Your task to perform on an android device: What's the weather going to be this weekend? Image 0: 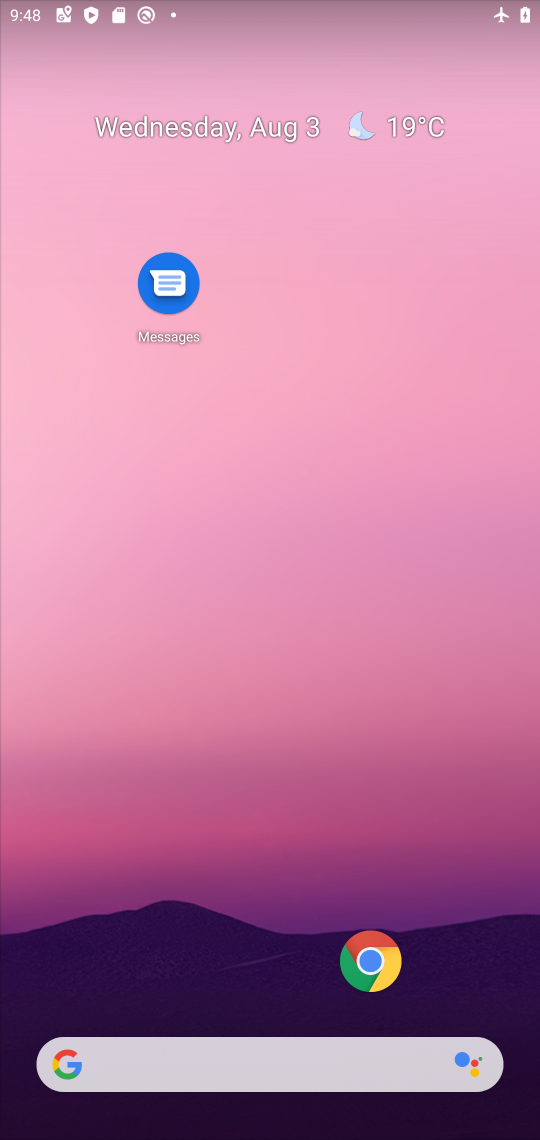
Step 0: click (306, 1055)
Your task to perform on an android device: What's the weather going to be this weekend? Image 1: 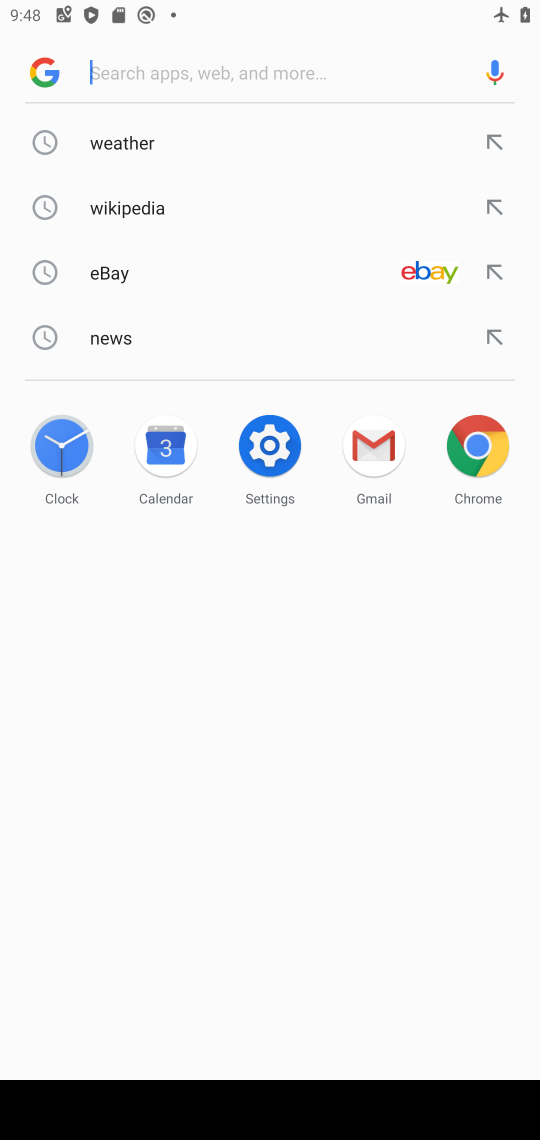
Step 1: click (110, 144)
Your task to perform on an android device: What's the weather going to be this weekend? Image 2: 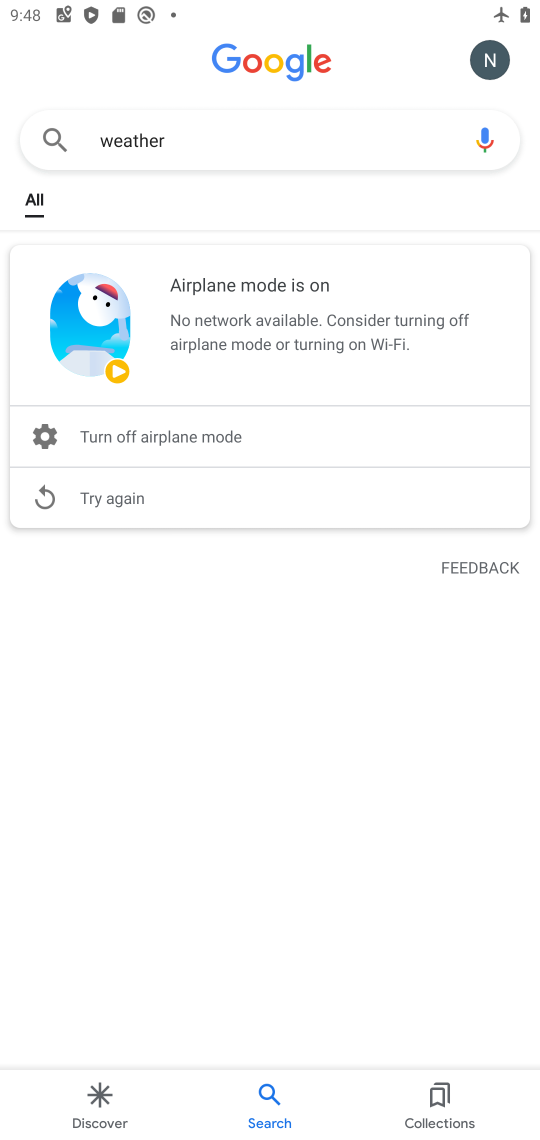
Step 2: task complete